Your task to perform on an android device: open app "AliExpress" (install if not already installed) and enter user name: "orangutan@inbox.com" and password: "Lyons" Image 0: 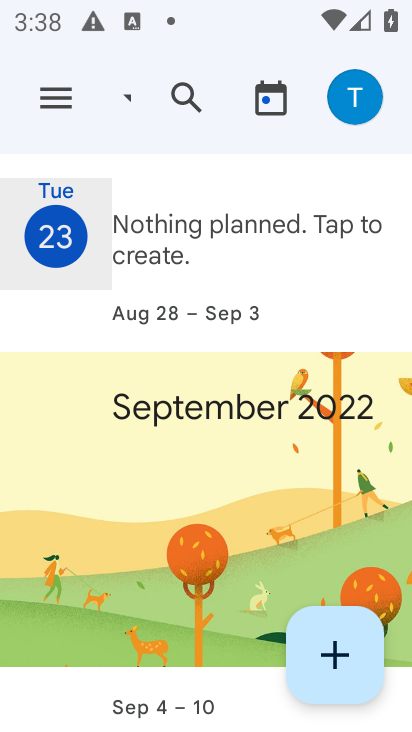
Step 0: press home button
Your task to perform on an android device: open app "AliExpress" (install if not already installed) and enter user name: "orangutan@inbox.com" and password: "Lyons" Image 1: 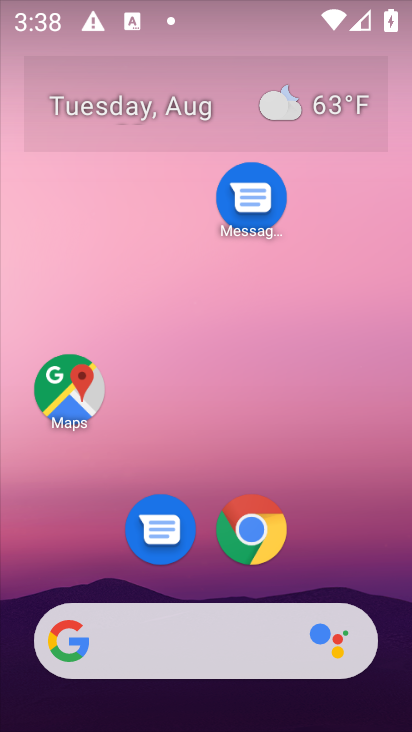
Step 1: drag from (247, 526) to (344, 237)
Your task to perform on an android device: open app "AliExpress" (install if not already installed) and enter user name: "orangutan@inbox.com" and password: "Lyons" Image 2: 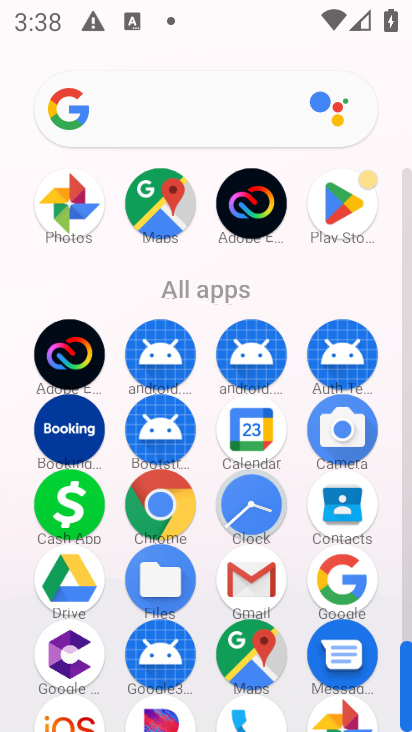
Step 2: click (344, 236)
Your task to perform on an android device: open app "AliExpress" (install if not already installed) and enter user name: "orangutan@inbox.com" and password: "Lyons" Image 3: 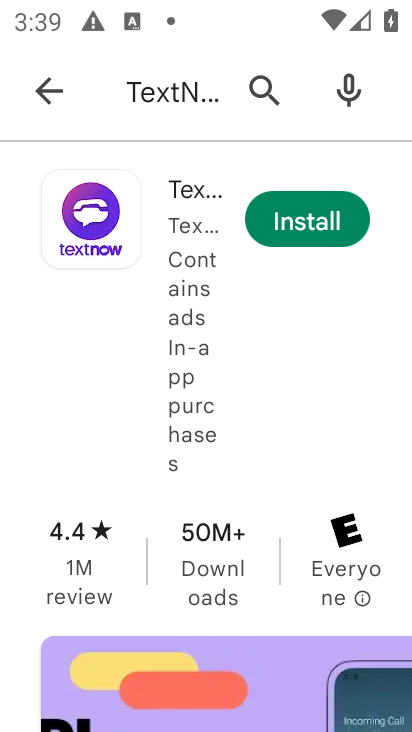
Step 3: press back button
Your task to perform on an android device: open app "AliExpress" (install if not already installed) and enter user name: "orangutan@inbox.com" and password: "Lyons" Image 4: 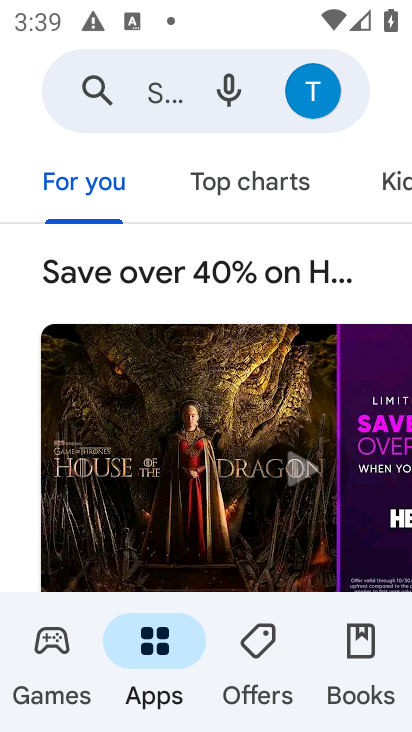
Step 4: click (136, 86)
Your task to perform on an android device: open app "AliExpress" (install if not already installed) and enter user name: "orangutan@inbox.com" and password: "Lyons" Image 5: 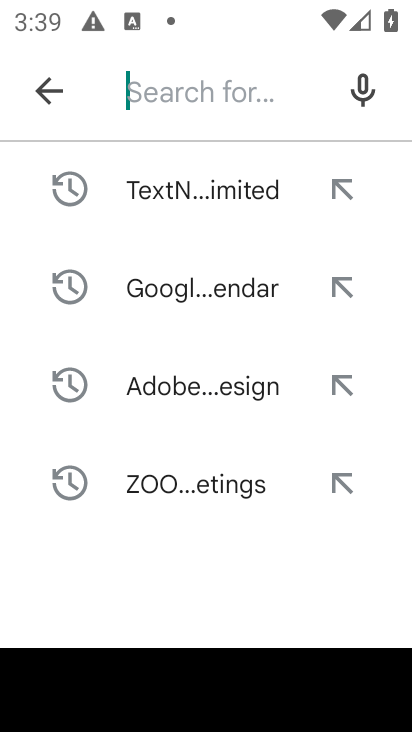
Step 5: type "AliExpress"
Your task to perform on an android device: open app "AliExpress" (install if not already installed) and enter user name: "orangutan@inbox.com" and password: "Lyons" Image 6: 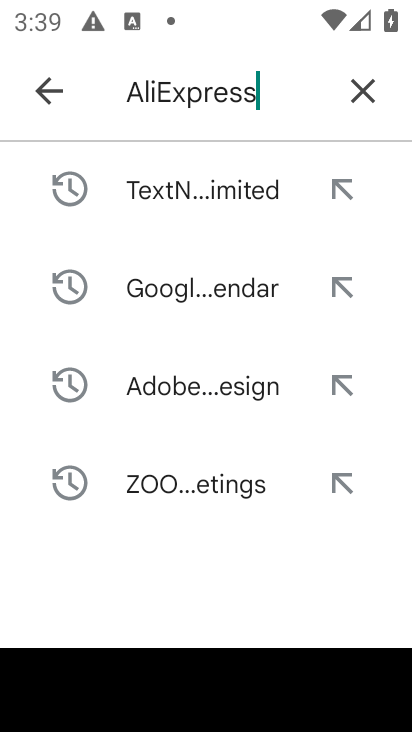
Step 6: press enter
Your task to perform on an android device: open app "AliExpress" (install if not already installed) and enter user name: "orangutan@inbox.com" and password: "Lyons" Image 7: 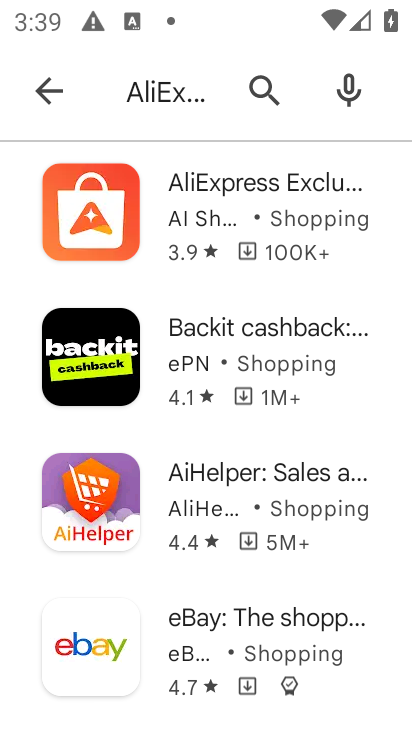
Step 7: click (86, 232)
Your task to perform on an android device: open app "AliExpress" (install if not already installed) and enter user name: "orangutan@inbox.com" and password: "Lyons" Image 8: 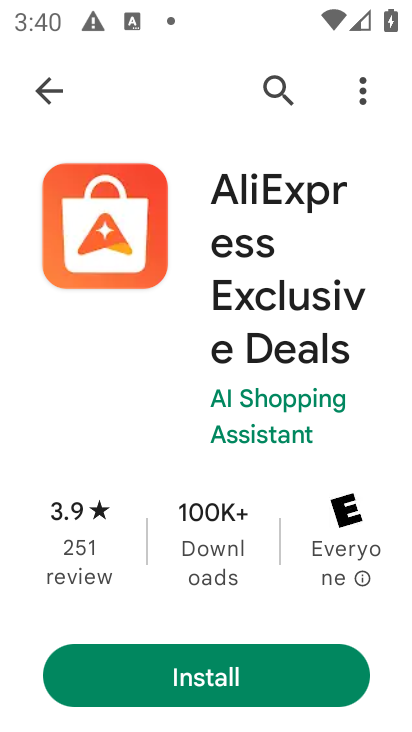
Step 8: click (186, 667)
Your task to perform on an android device: open app "AliExpress" (install if not already installed) and enter user name: "orangutan@inbox.com" and password: "Lyons" Image 9: 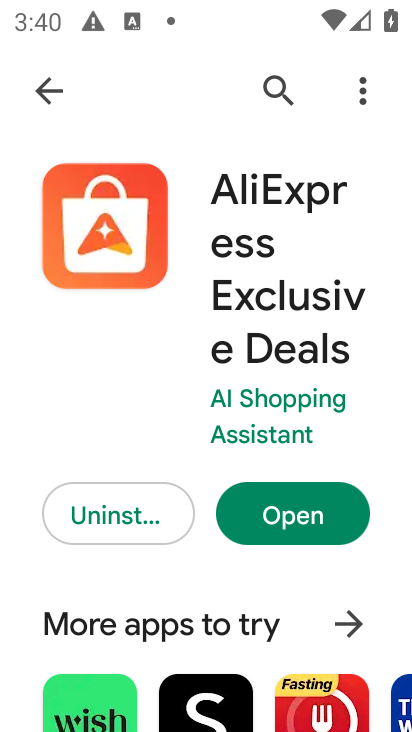
Step 9: click (280, 520)
Your task to perform on an android device: open app "AliExpress" (install if not already installed) and enter user name: "orangutan@inbox.com" and password: "Lyons" Image 10: 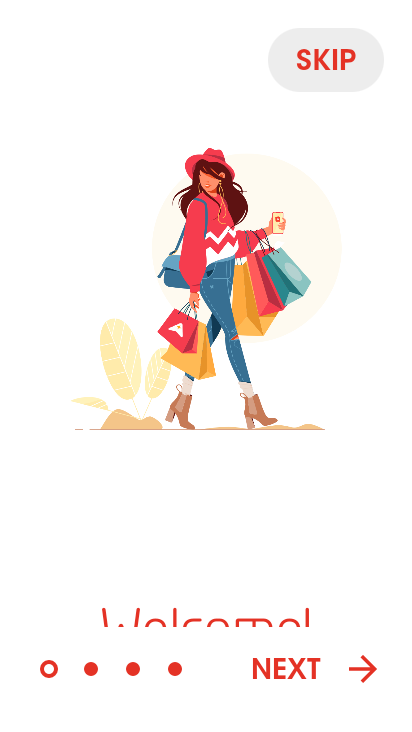
Step 10: click (293, 677)
Your task to perform on an android device: open app "AliExpress" (install if not already installed) and enter user name: "orangutan@inbox.com" and password: "Lyons" Image 11: 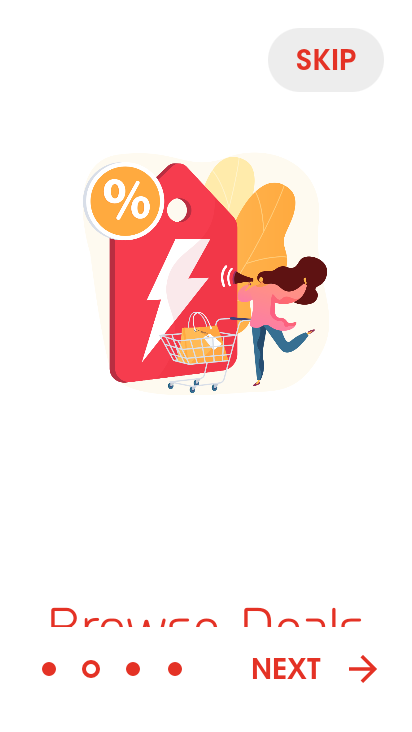
Step 11: click (292, 673)
Your task to perform on an android device: open app "AliExpress" (install if not already installed) and enter user name: "orangutan@inbox.com" and password: "Lyons" Image 12: 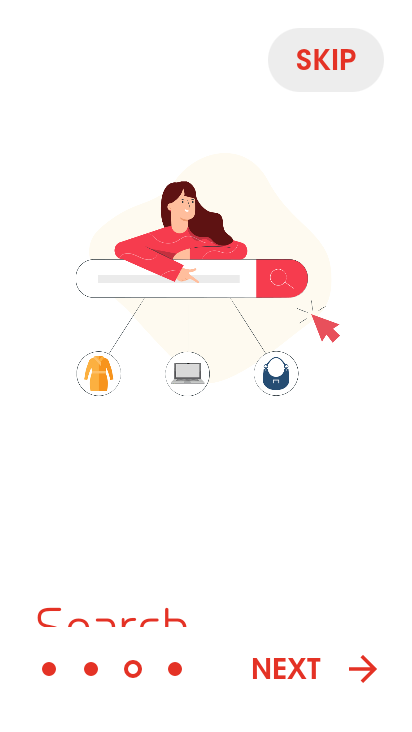
Step 12: click (301, 655)
Your task to perform on an android device: open app "AliExpress" (install if not already installed) and enter user name: "orangutan@inbox.com" and password: "Lyons" Image 13: 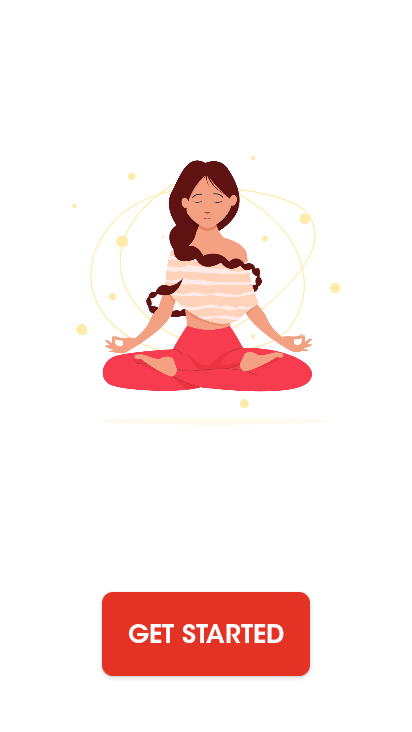
Step 13: click (274, 649)
Your task to perform on an android device: open app "AliExpress" (install if not already installed) and enter user name: "orangutan@inbox.com" and password: "Lyons" Image 14: 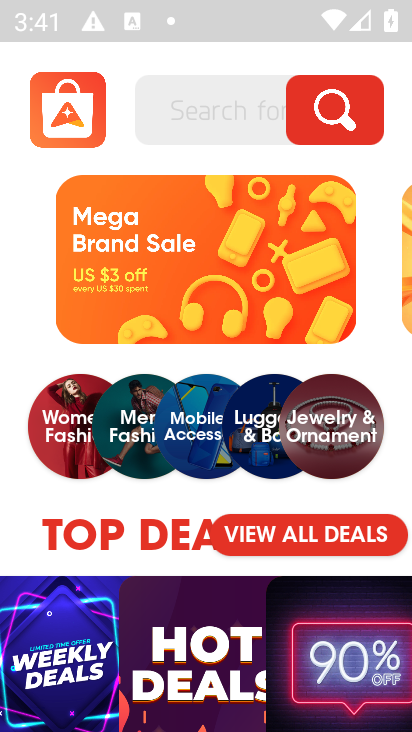
Step 14: click (67, 103)
Your task to perform on an android device: open app "AliExpress" (install if not already installed) and enter user name: "orangutan@inbox.com" and password: "Lyons" Image 15: 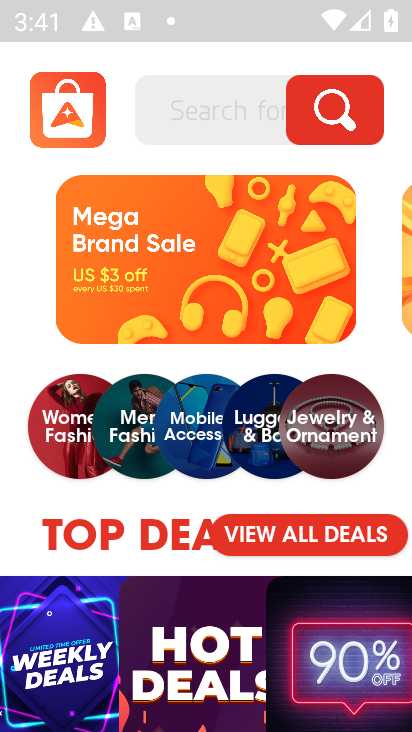
Step 15: task complete